Your task to perform on an android device: uninstall "Instagram" Image 0: 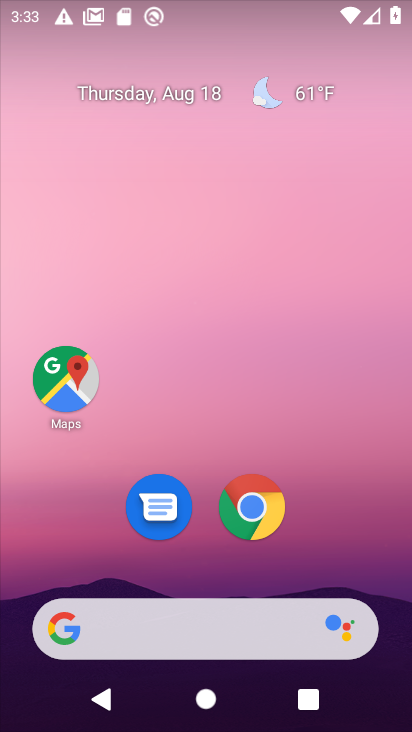
Step 0: drag from (179, 580) to (224, 72)
Your task to perform on an android device: uninstall "Instagram" Image 1: 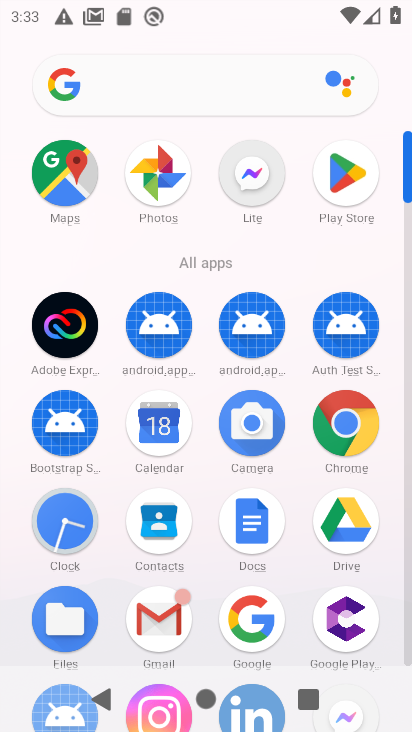
Step 1: click (348, 166)
Your task to perform on an android device: uninstall "Instagram" Image 2: 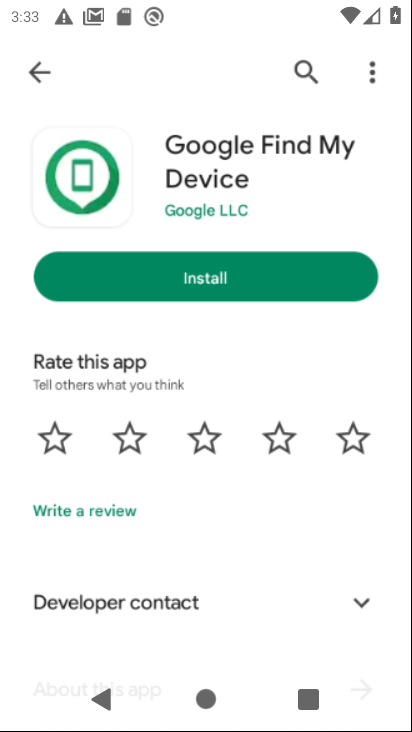
Step 2: click (300, 64)
Your task to perform on an android device: uninstall "Instagram" Image 3: 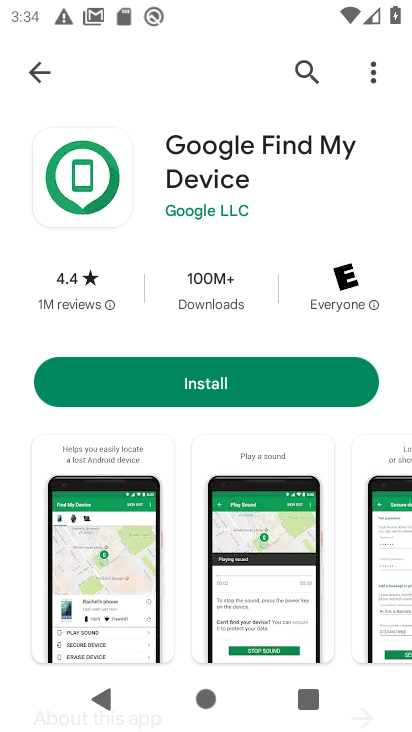
Step 3: click (299, 63)
Your task to perform on an android device: uninstall "Instagram" Image 4: 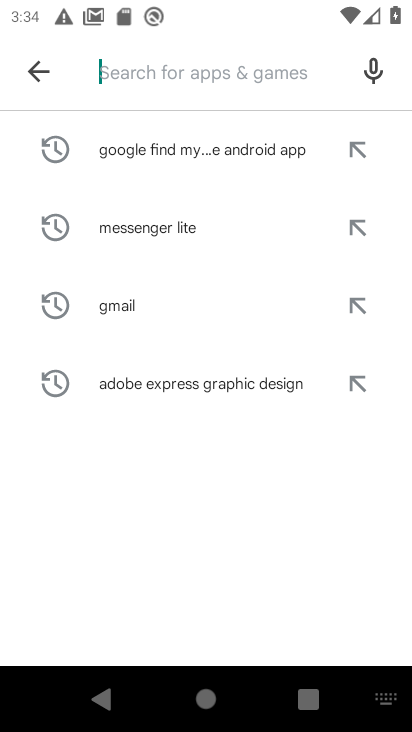
Step 4: type "Instagram"
Your task to perform on an android device: uninstall "Instagram" Image 5: 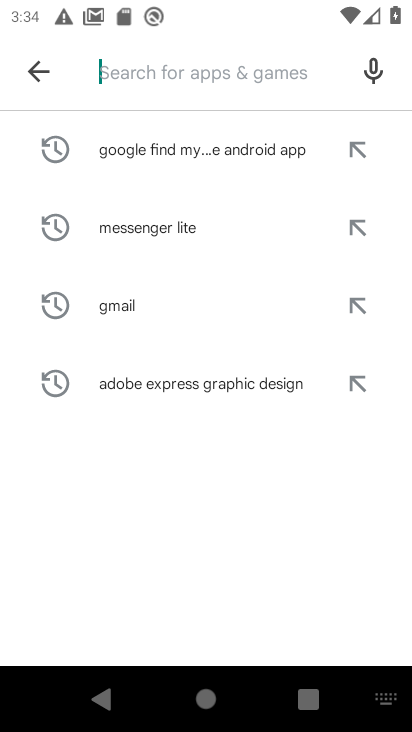
Step 5: click (197, 473)
Your task to perform on an android device: uninstall "Instagram" Image 6: 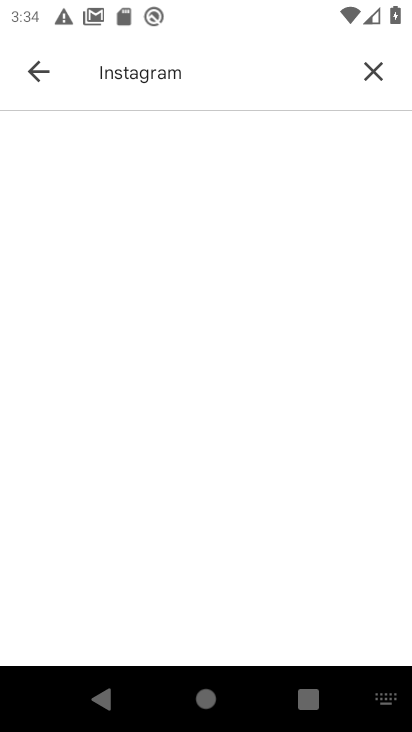
Step 6: click (211, 149)
Your task to perform on an android device: uninstall "Instagram" Image 7: 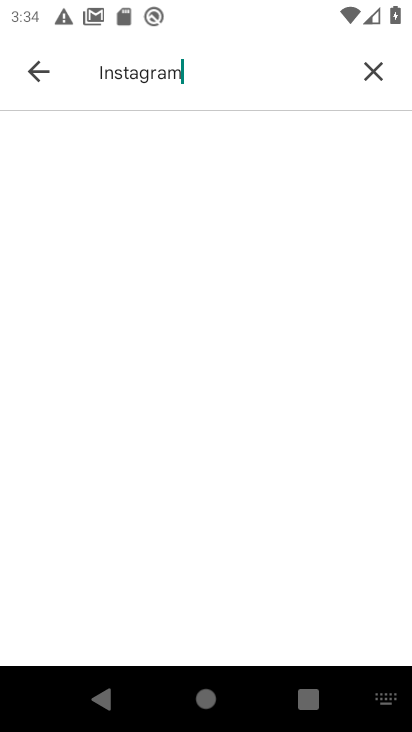
Step 7: click (367, 64)
Your task to perform on an android device: uninstall "Instagram" Image 8: 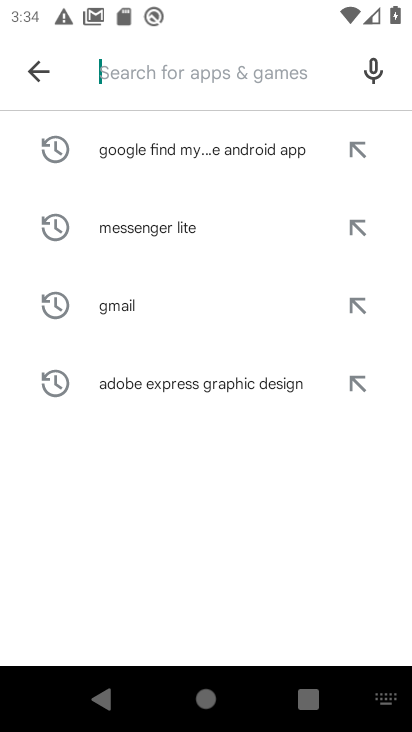
Step 8: press back button
Your task to perform on an android device: uninstall "Instagram" Image 9: 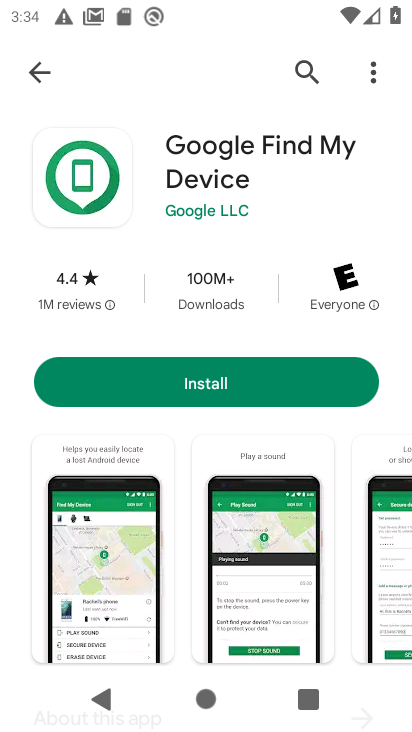
Step 9: press back button
Your task to perform on an android device: uninstall "Instagram" Image 10: 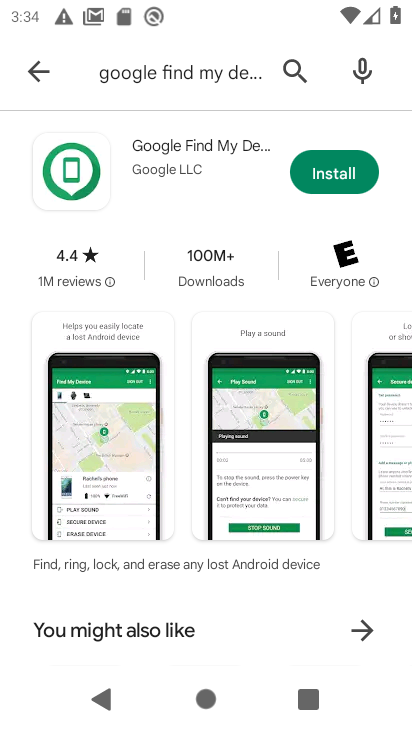
Step 10: press back button
Your task to perform on an android device: uninstall "Instagram" Image 11: 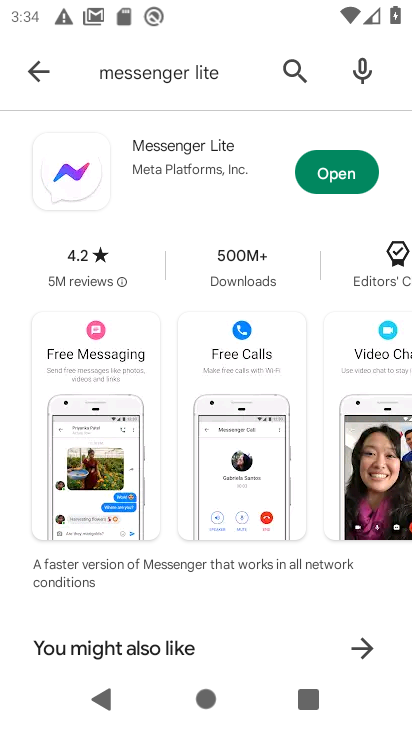
Step 11: press back button
Your task to perform on an android device: uninstall "Instagram" Image 12: 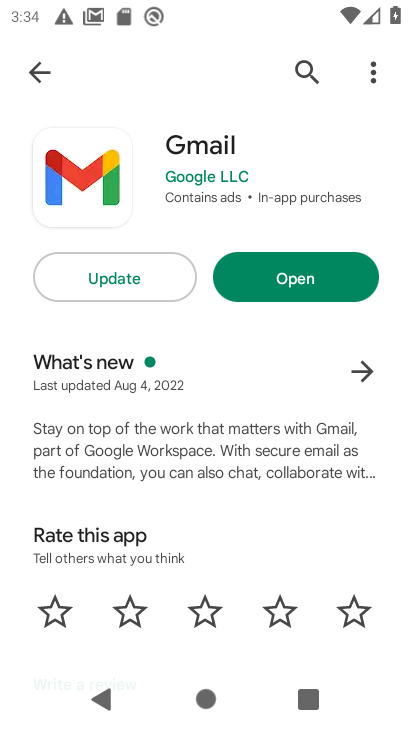
Step 12: click (303, 55)
Your task to perform on an android device: uninstall "Instagram" Image 13: 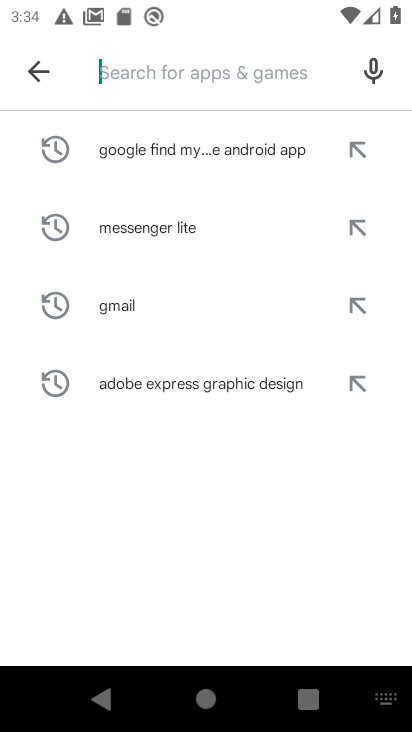
Step 13: type "insta"
Your task to perform on an android device: uninstall "Instagram" Image 14: 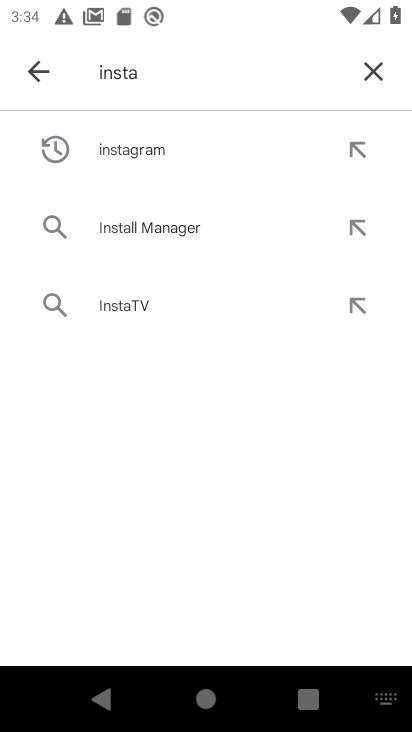
Step 14: click (122, 148)
Your task to perform on an android device: uninstall "Instagram" Image 15: 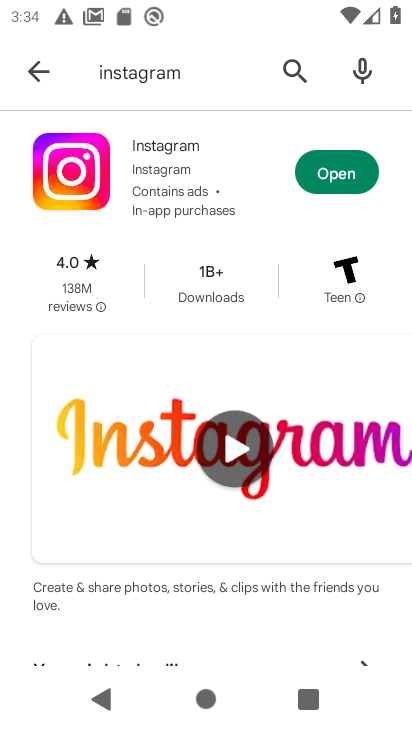
Step 15: click (171, 163)
Your task to perform on an android device: uninstall "Instagram" Image 16: 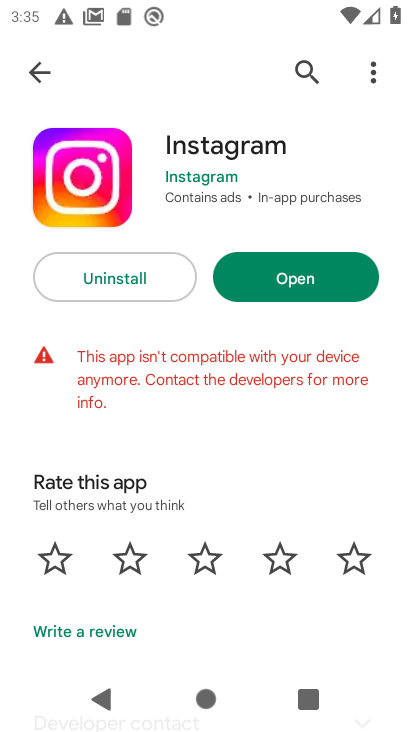
Step 16: click (128, 270)
Your task to perform on an android device: uninstall "Instagram" Image 17: 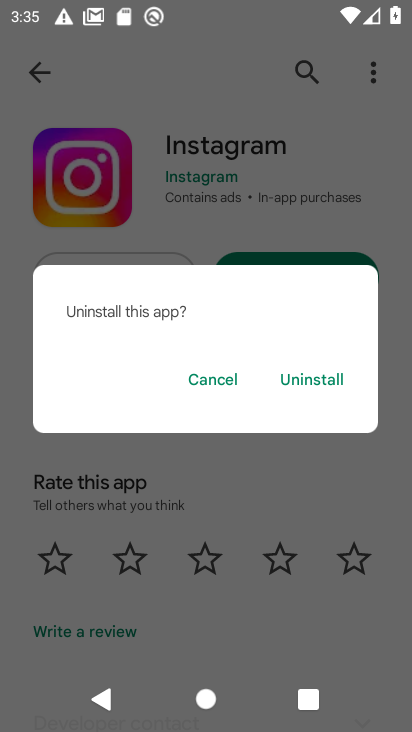
Step 17: click (300, 378)
Your task to perform on an android device: uninstall "Instagram" Image 18: 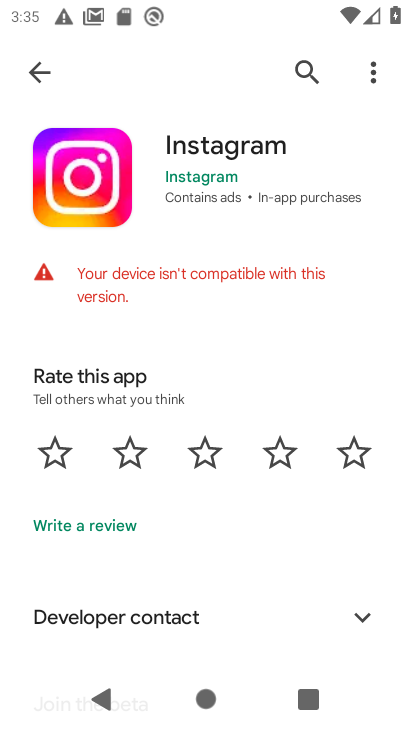
Step 18: task complete